Your task to perform on an android device: Search for Italian restaurants on Maps Image 0: 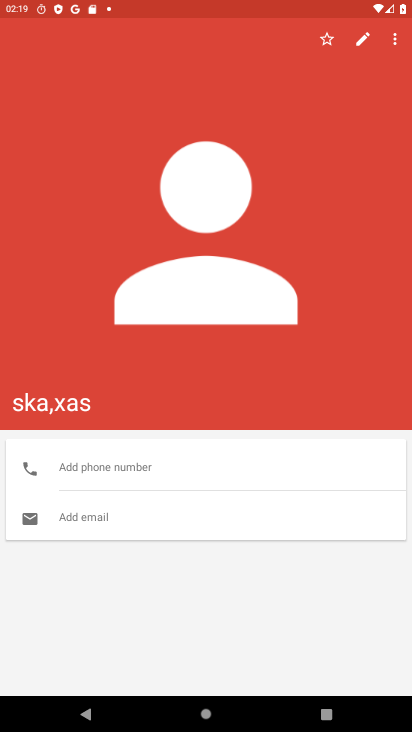
Step 0: drag from (188, 623) to (221, 448)
Your task to perform on an android device: Search for Italian restaurants on Maps Image 1: 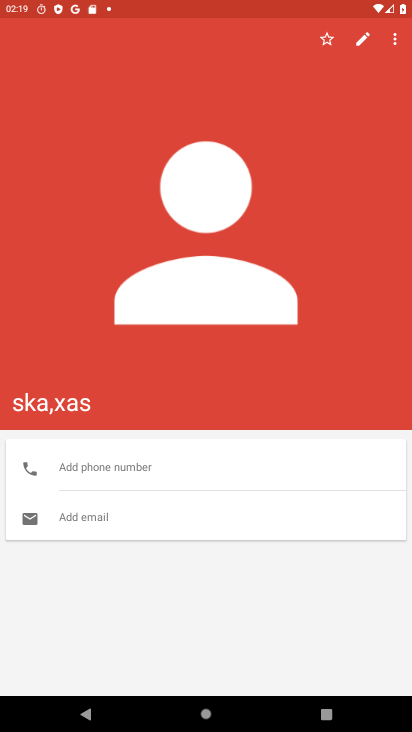
Step 1: press home button
Your task to perform on an android device: Search for Italian restaurants on Maps Image 2: 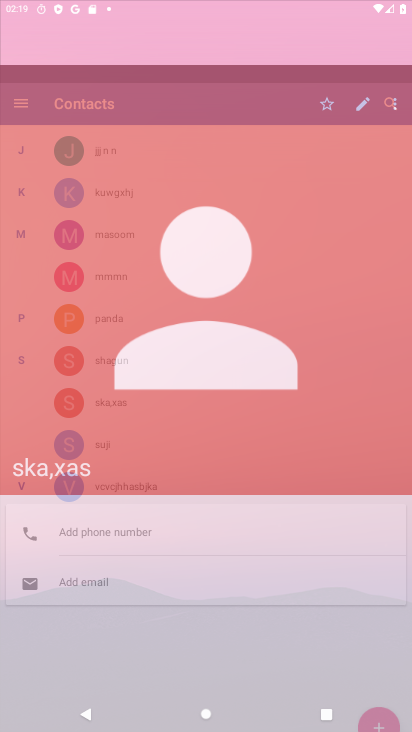
Step 2: drag from (246, 588) to (241, 323)
Your task to perform on an android device: Search for Italian restaurants on Maps Image 3: 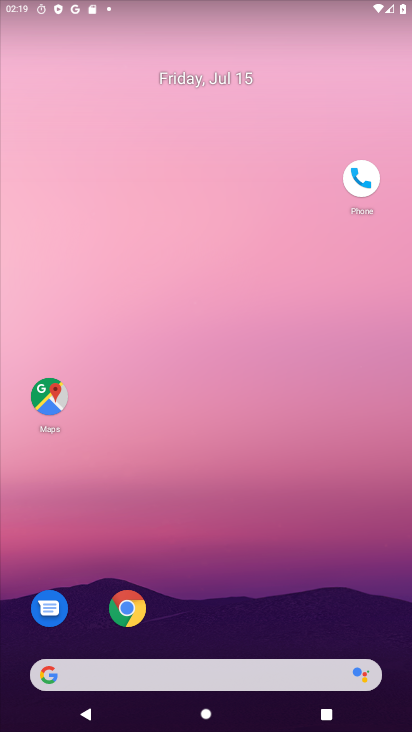
Step 3: click (37, 392)
Your task to perform on an android device: Search for Italian restaurants on Maps Image 4: 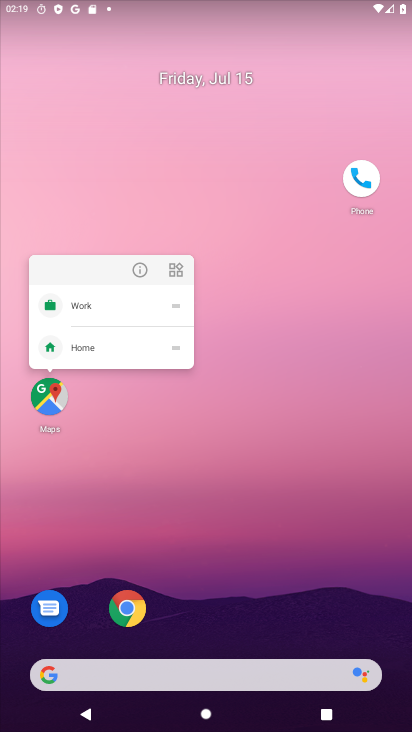
Step 4: drag from (176, 639) to (208, 179)
Your task to perform on an android device: Search for Italian restaurants on Maps Image 5: 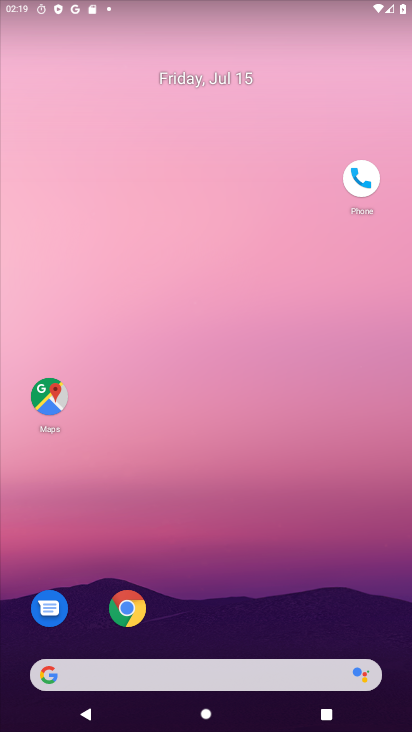
Step 5: drag from (207, 595) to (254, 149)
Your task to perform on an android device: Search for Italian restaurants on Maps Image 6: 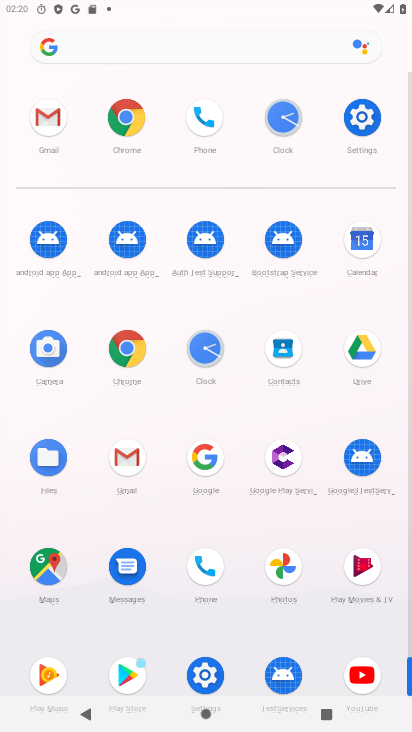
Step 6: click (40, 572)
Your task to perform on an android device: Search for Italian restaurants on Maps Image 7: 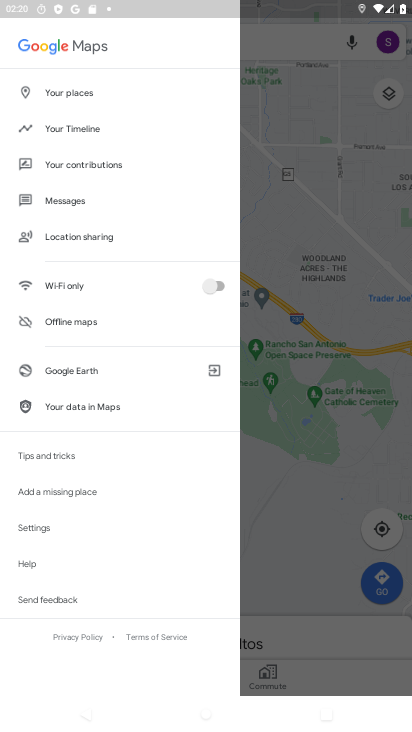
Step 7: click (59, 517)
Your task to perform on an android device: Search for Italian restaurants on Maps Image 8: 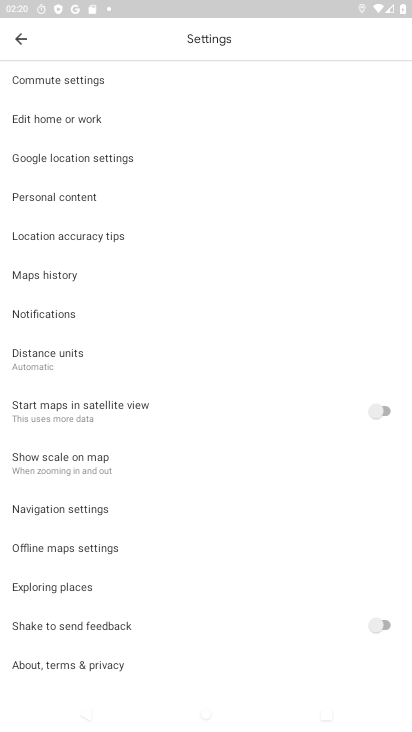
Step 8: drag from (212, 624) to (223, 441)
Your task to perform on an android device: Search for Italian restaurants on Maps Image 9: 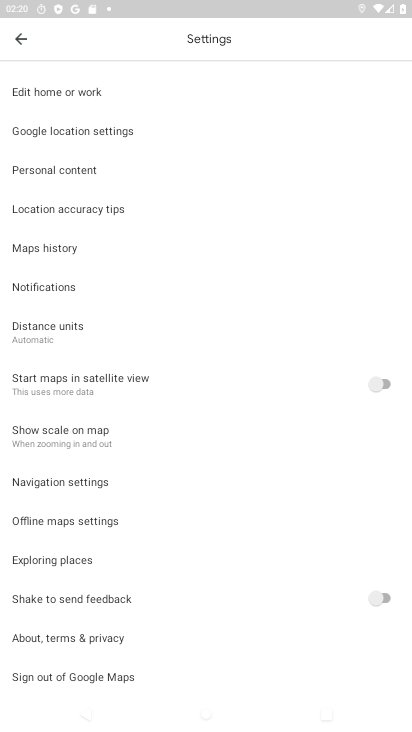
Step 9: drag from (84, 182) to (155, 535)
Your task to perform on an android device: Search for Italian restaurants on Maps Image 10: 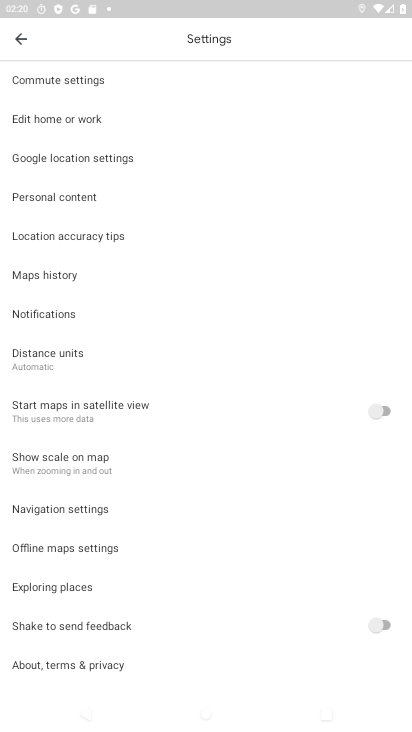
Step 10: click (6, 33)
Your task to perform on an android device: Search for Italian restaurants on Maps Image 11: 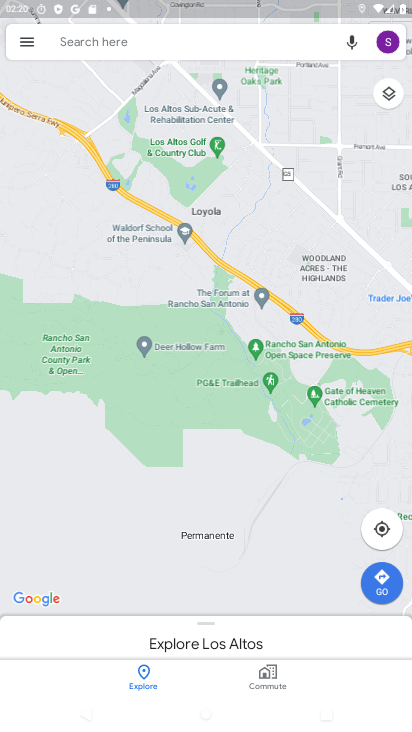
Step 11: click (126, 48)
Your task to perform on an android device: Search for Italian restaurants on Maps Image 12: 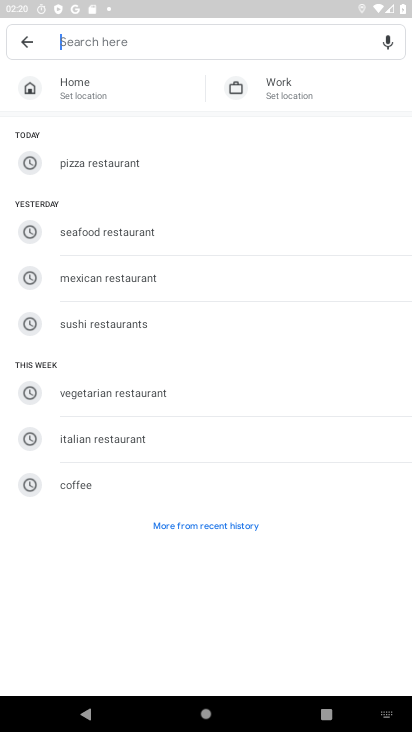
Step 12: click (132, 436)
Your task to perform on an android device: Search for Italian restaurants on Maps Image 13: 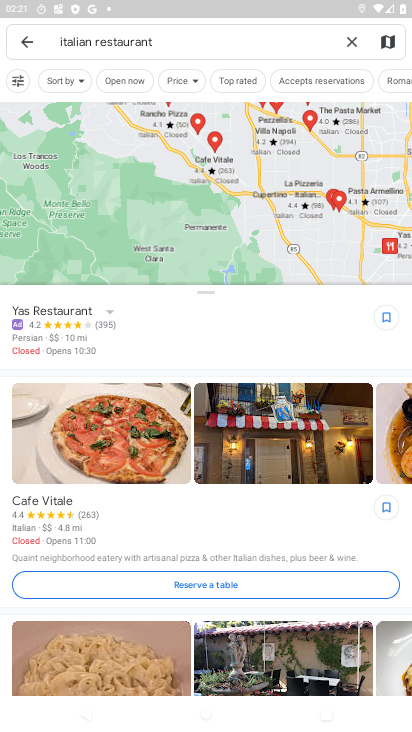
Step 13: task complete